Your task to perform on an android device: Open Chrome and go to settings Image 0: 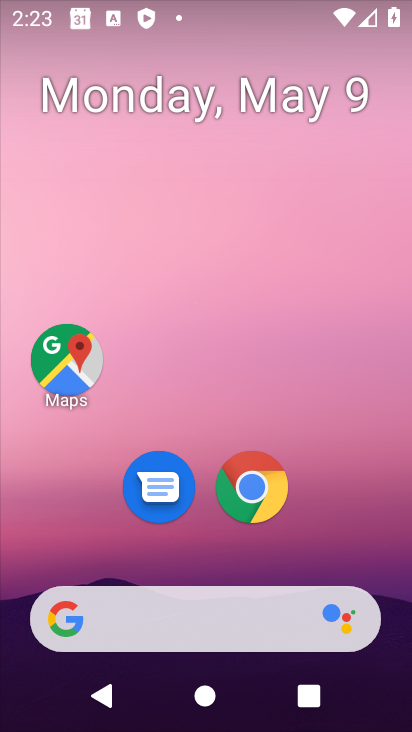
Step 0: click (266, 495)
Your task to perform on an android device: Open Chrome and go to settings Image 1: 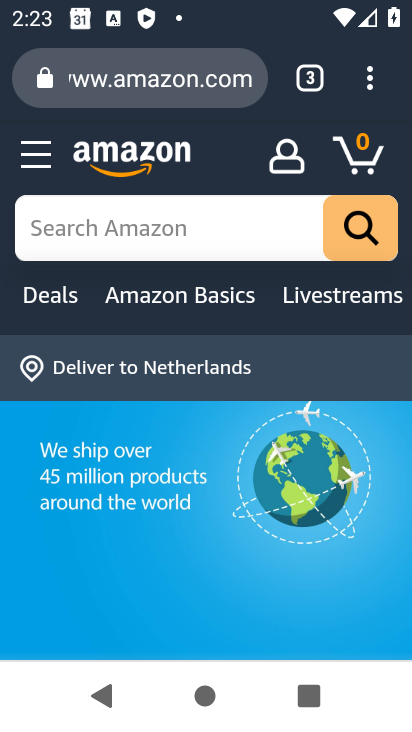
Step 1: click (372, 84)
Your task to perform on an android device: Open Chrome and go to settings Image 2: 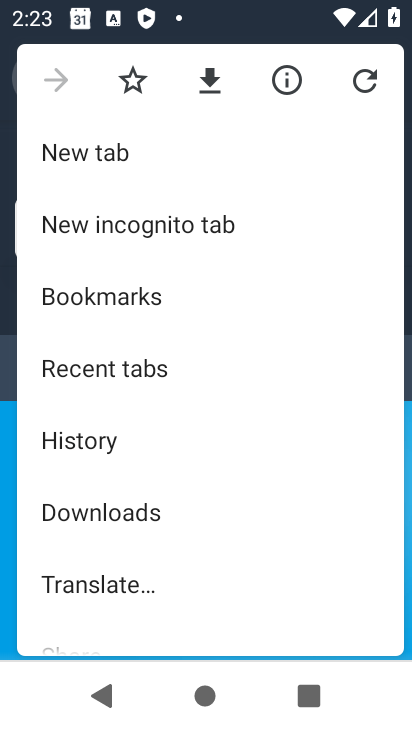
Step 2: drag from (165, 601) to (233, 164)
Your task to perform on an android device: Open Chrome and go to settings Image 3: 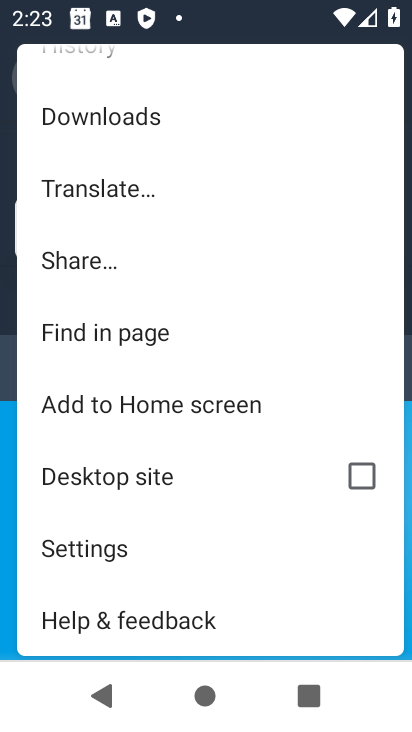
Step 3: click (131, 546)
Your task to perform on an android device: Open Chrome and go to settings Image 4: 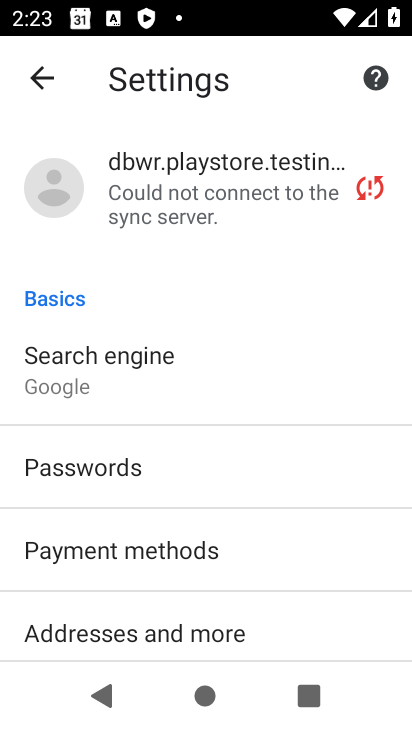
Step 4: task complete